Your task to perform on an android device: Go to Wikipedia Image 0: 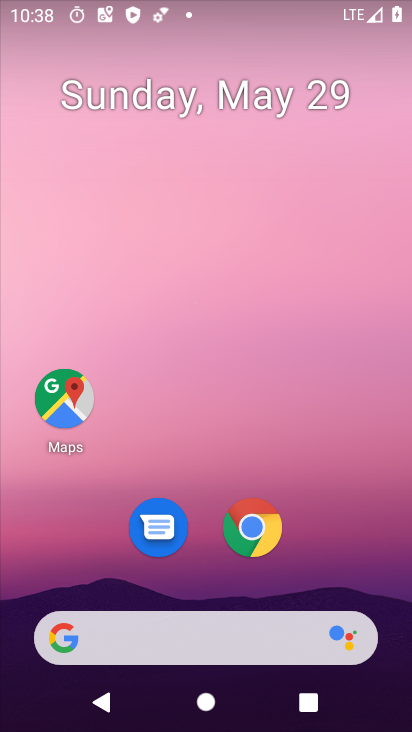
Step 0: drag from (314, 524) to (272, 2)
Your task to perform on an android device: Go to Wikipedia Image 1: 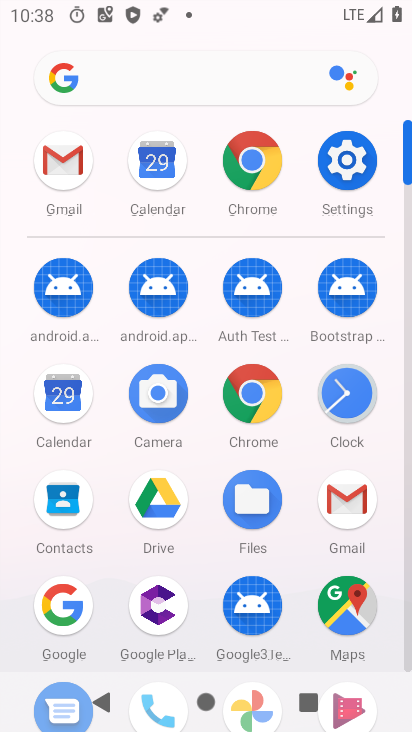
Step 1: click (250, 161)
Your task to perform on an android device: Go to Wikipedia Image 2: 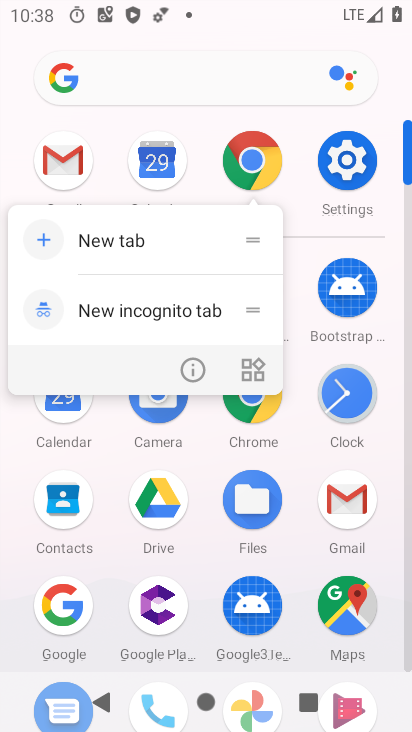
Step 2: click (250, 157)
Your task to perform on an android device: Go to Wikipedia Image 3: 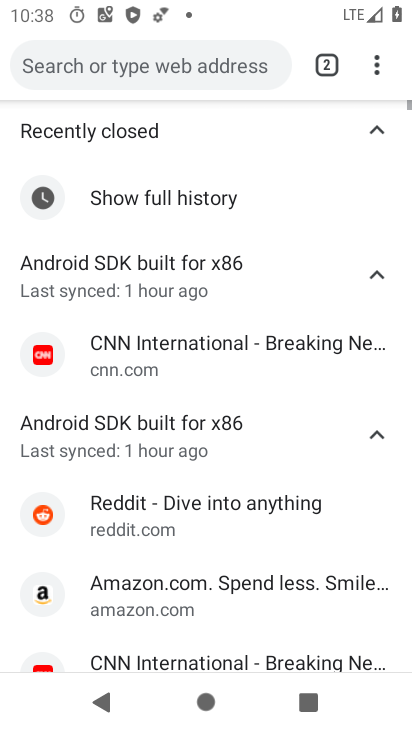
Step 3: click (254, 53)
Your task to perform on an android device: Go to Wikipedia Image 4: 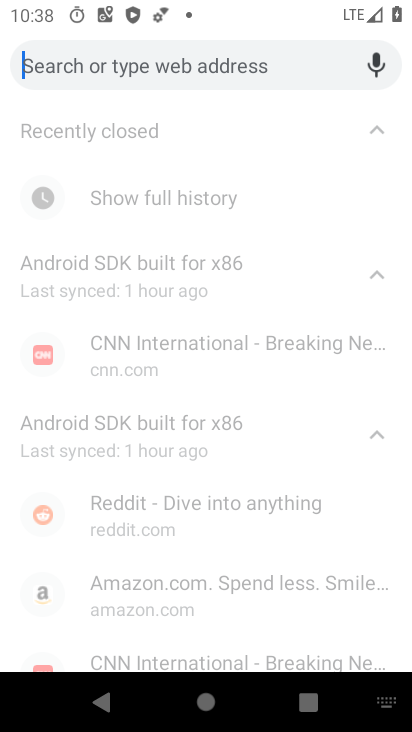
Step 4: type "wikipedia"
Your task to perform on an android device: Go to Wikipedia Image 5: 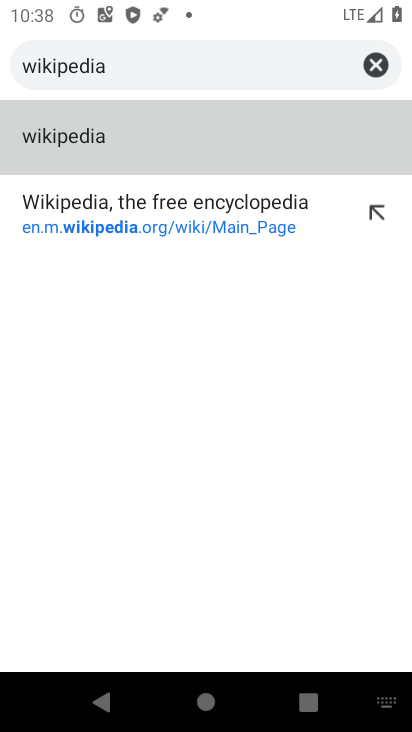
Step 5: click (138, 232)
Your task to perform on an android device: Go to Wikipedia Image 6: 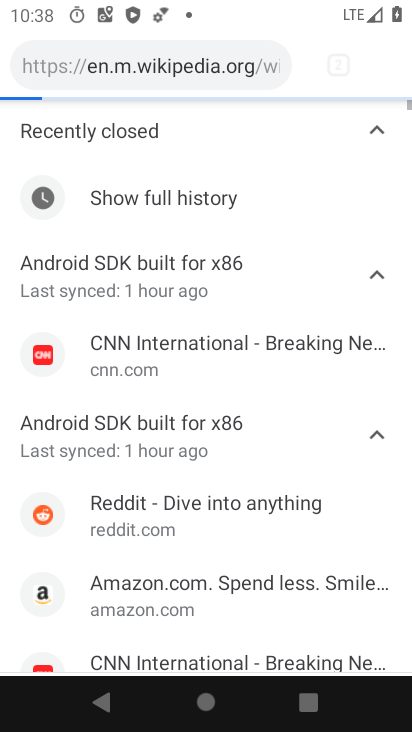
Step 6: click (138, 232)
Your task to perform on an android device: Go to Wikipedia Image 7: 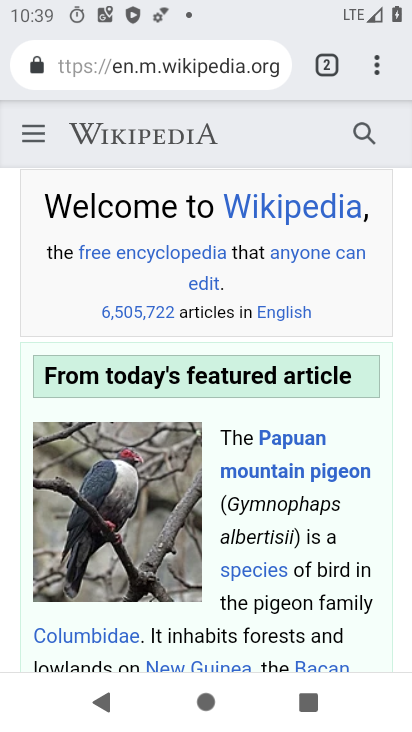
Step 7: task complete